Your task to perform on an android device: remove spam from my inbox in the gmail app Image 0: 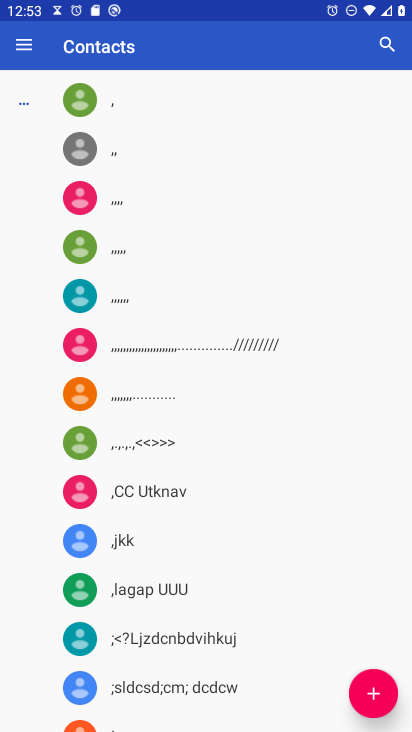
Step 0: press home button
Your task to perform on an android device: remove spam from my inbox in the gmail app Image 1: 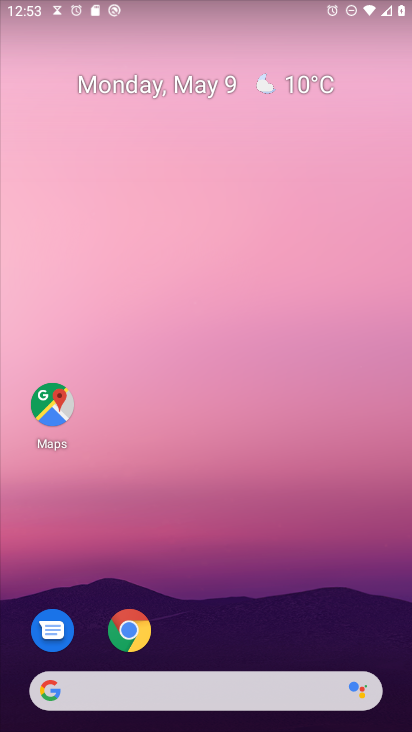
Step 1: drag from (170, 700) to (306, 182)
Your task to perform on an android device: remove spam from my inbox in the gmail app Image 2: 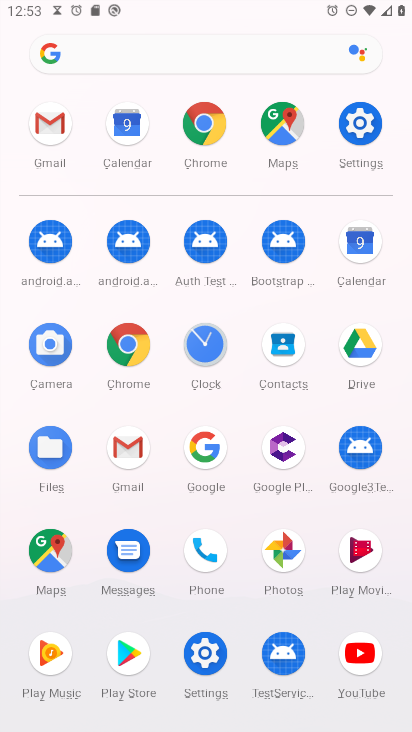
Step 2: click (45, 137)
Your task to perform on an android device: remove spam from my inbox in the gmail app Image 3: 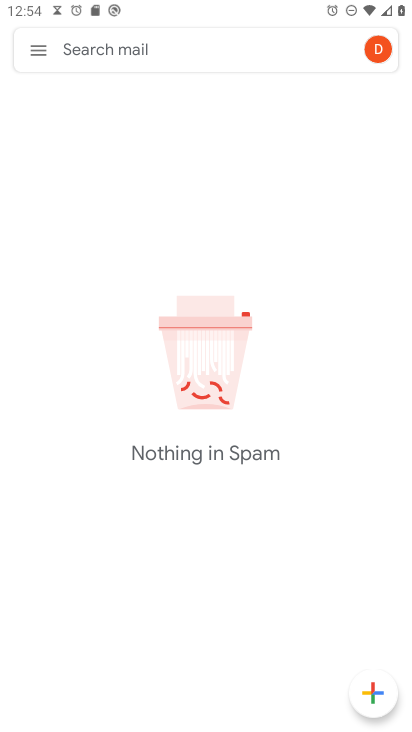
Step 3: task complete